Your task to perform on an android device: Turn on the flashlight Image 0: 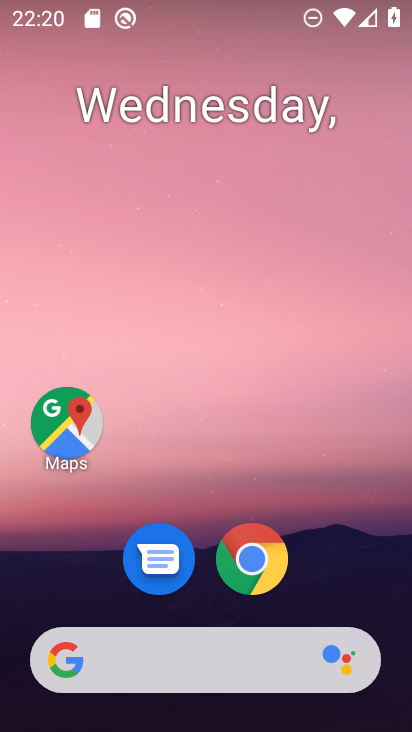
Step 0: drag from (264, 2) to (277, 304)
Your task to perform on an android device: Turn on the flashlight Image 1: 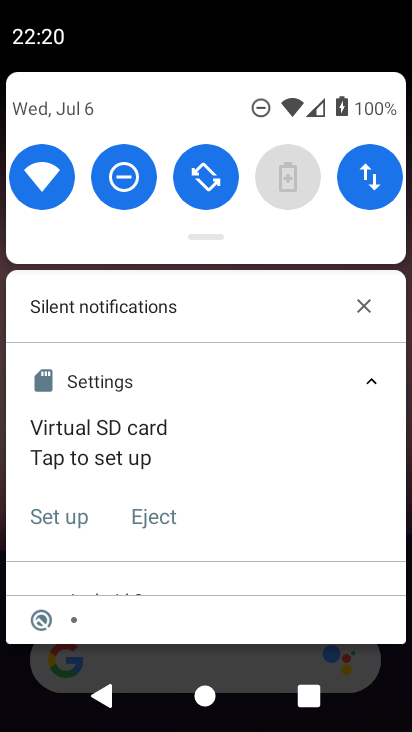
Step 1: drag from (242, 134) to (260, 360)
Your task to perform on an android device: Turn on the flashlight Image 2: 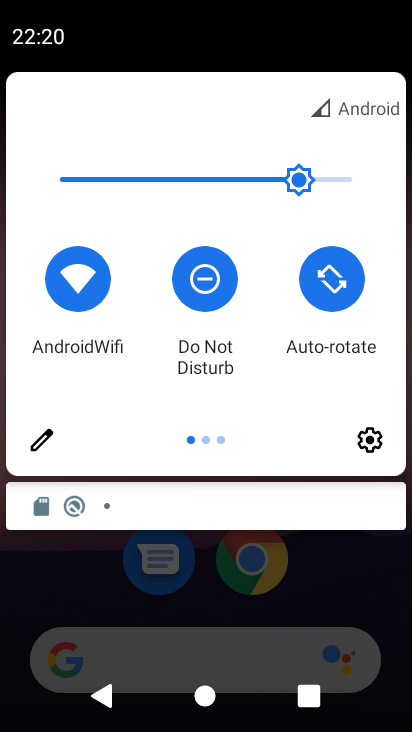
Step 2: click (54, 448)
Your task to perform on an android device: Turn on the flashlight Image 3: 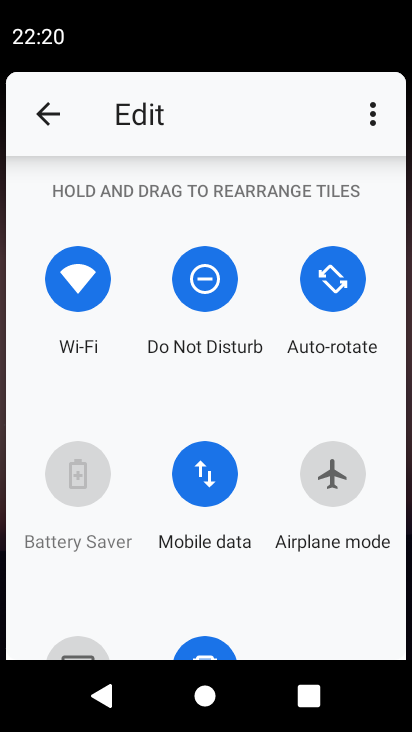
Step 3: task complete